Your task to perform on an android device: Open Amazon Image 0: 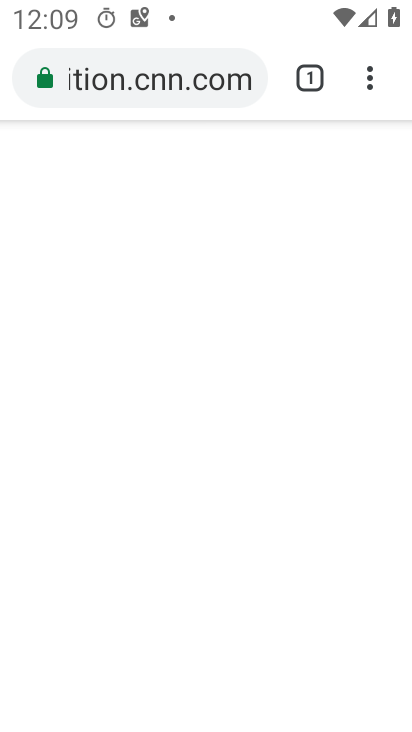
Step 0: press home button
Your task to perform on an android device: Open Amazon Image 1: 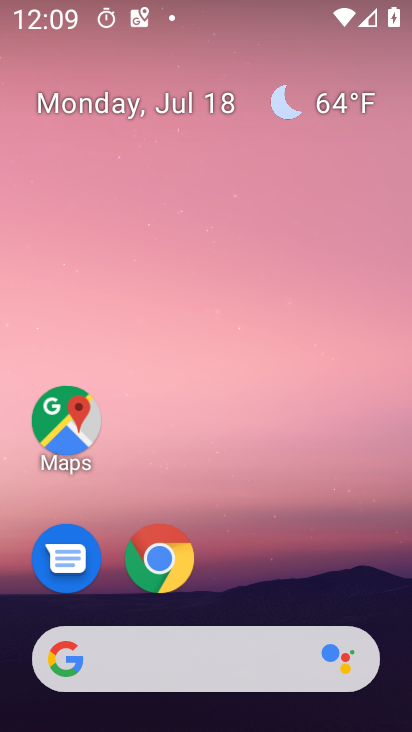
Step 1: drag from (323, 562) to (360, 115)
Your task to perform on an android device: Open Amazon Image 2: 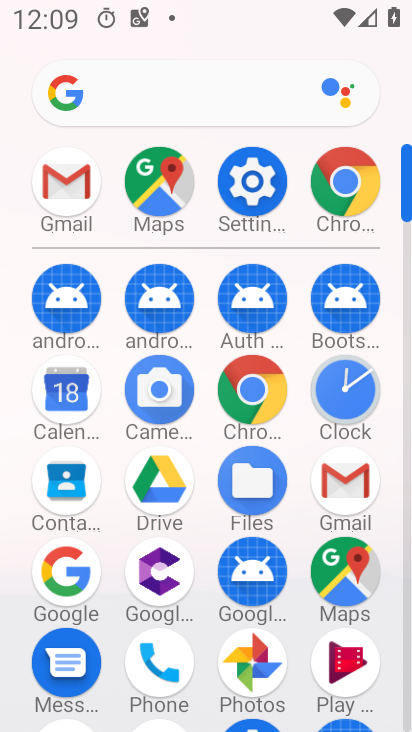
Step 2: click (269, 387)
Your task to perform on an android device: Open Amazon Image 3: 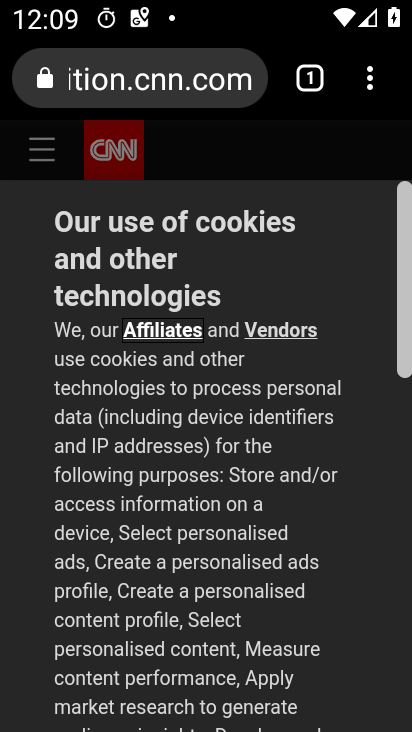
Step 3: click (217, 82)
Your task to perform on an android device: Open Amazon Image 4: 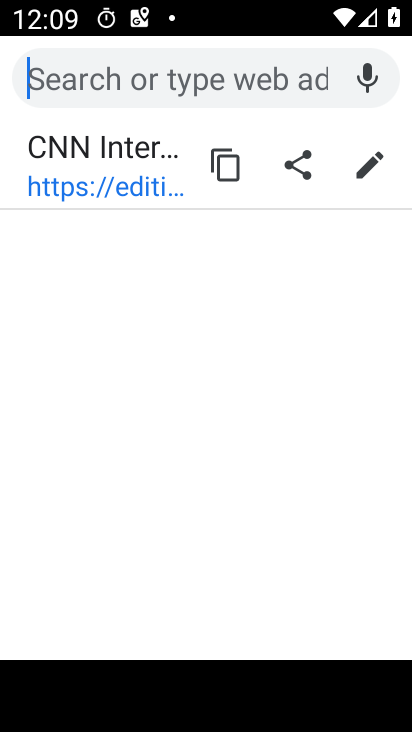
Step 4: type "amazon"
Your task to perform on an android device: Open Amazon Image 5: 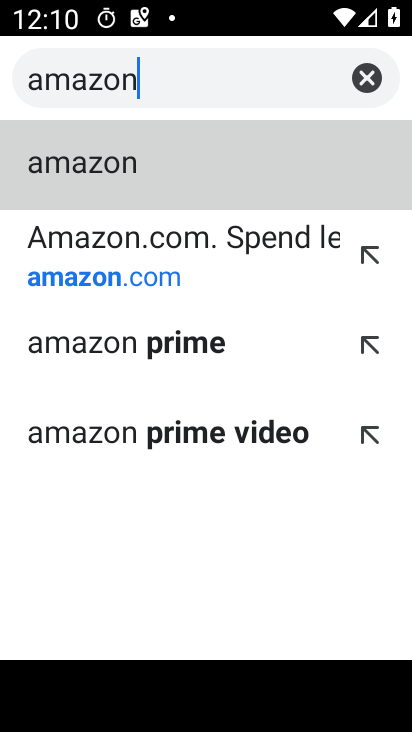
Step 5: click (221, 152)
Your task to perform on an android device: Open Amazon Image 6: 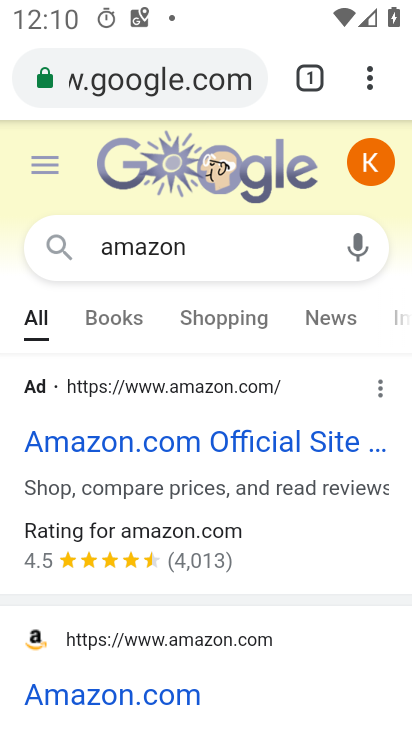
Step 6: task complete